Your task to perform on an android device: Do I have any events tomorrow? Image 0: 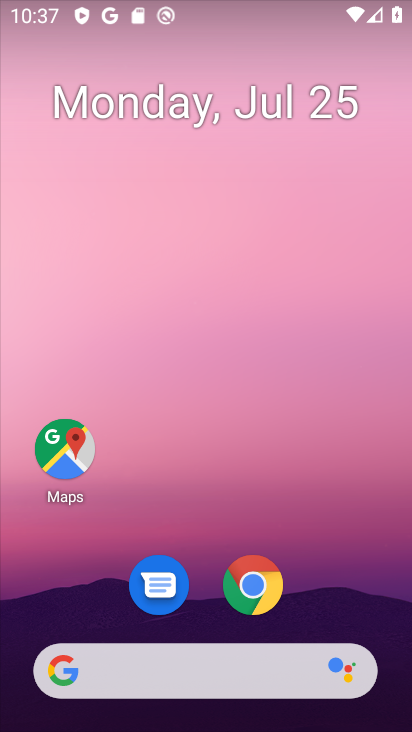
Step 0: drag from (331, 575) to (340, 116)
Your task to perform on an android device: Do I have any events tomorrow? Image 1: 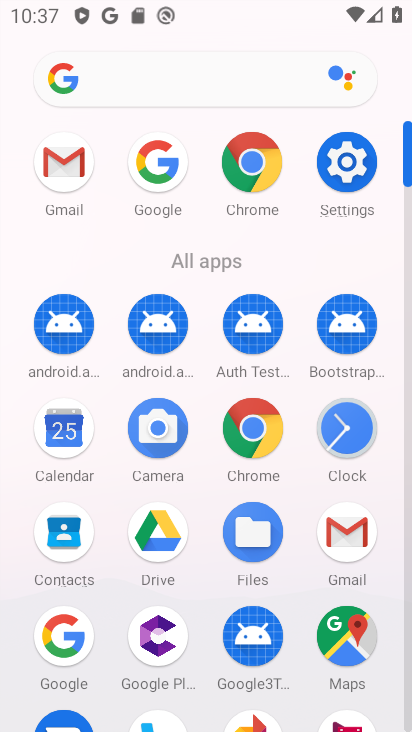
Step 1: click (69, 426)
Your task to perform on an android device: Do I have any events tomorrow? Image 2: 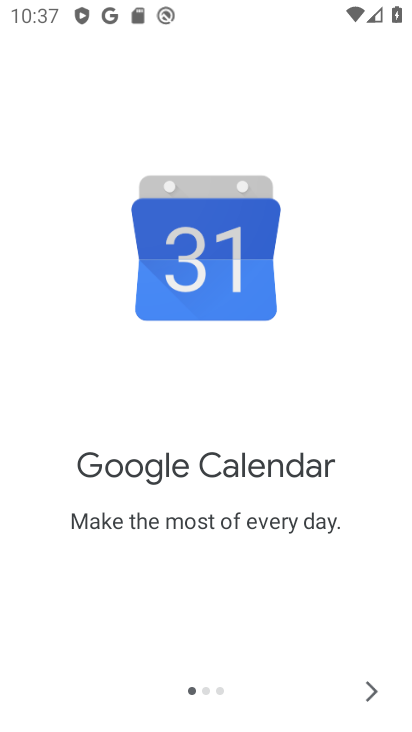
Step 2: click (366, 685)
Your task to perform on an android device: Do I have any events tomorrow? Image 3: 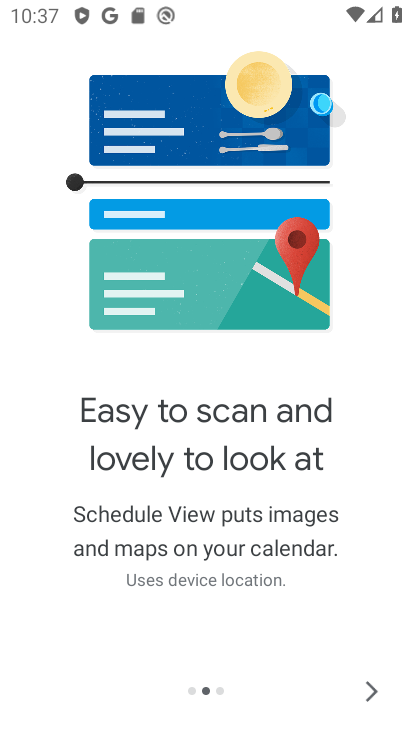
Step 3: click (366, 690)
Your task to perform on an android device: Do I have any events tomorrow? Image 4: 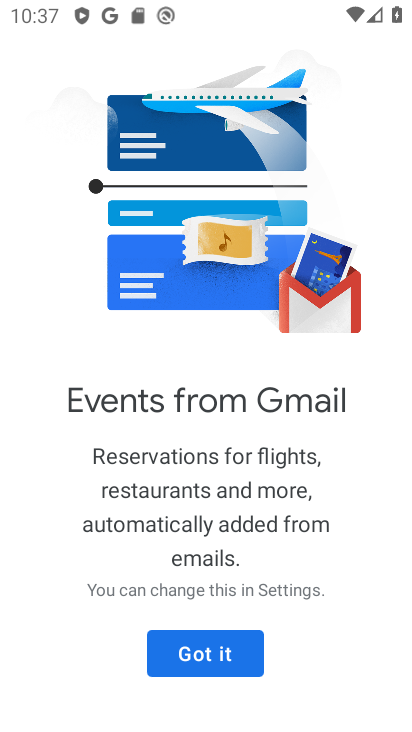
Step 4: click (252, 658)
Your task to perform on an android device: Do I have any events tomorrow? Image 5: 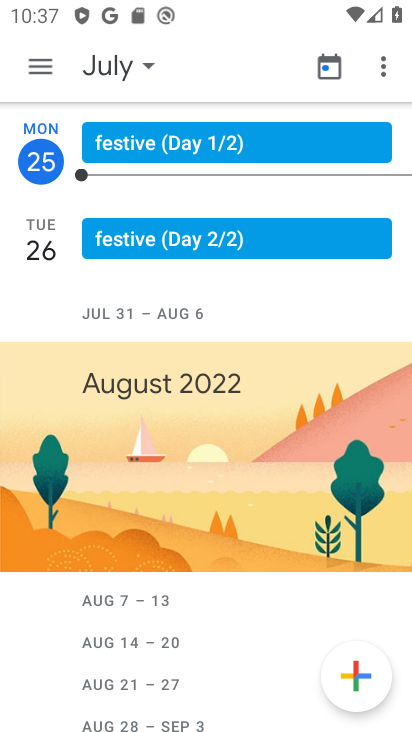
Step 5: click (39, 159)
Your task to perform on an android device: Do I have any events tomorrow? Image 6: 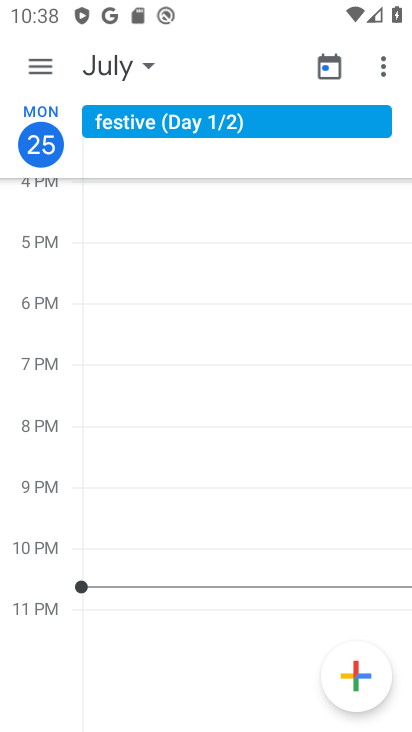
Step 6: click (46, 62)
Your task to perform on an android device: Do I have any events tomorrow? Image 7: 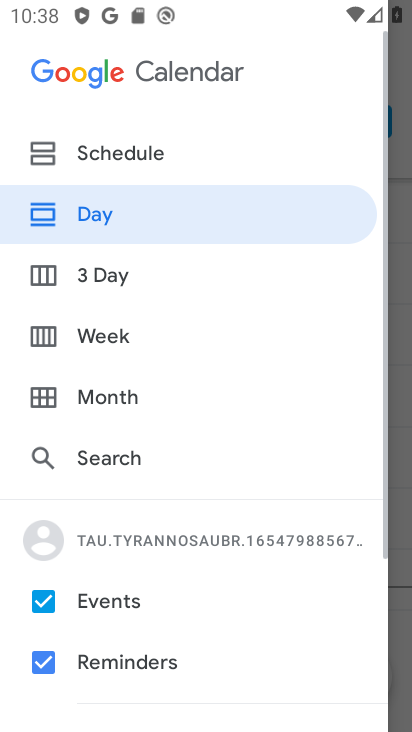
Step 7: click (56, 269)
Your task to perform on an android device: Do I have any events tomorrow? Image 8: 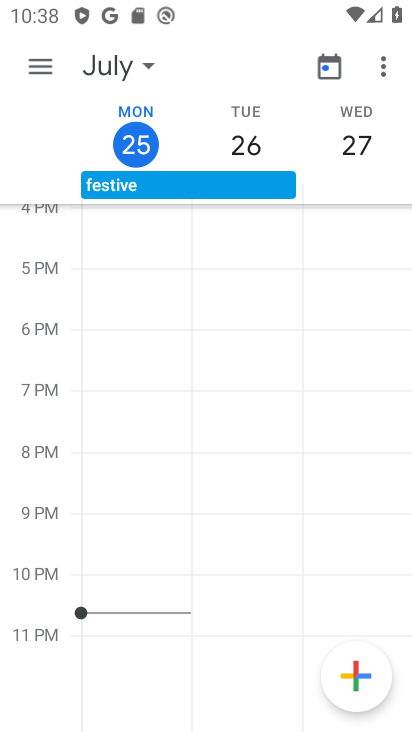
Step 8: task complete